Your task to perform on an android device: turn off wifi Image 0: 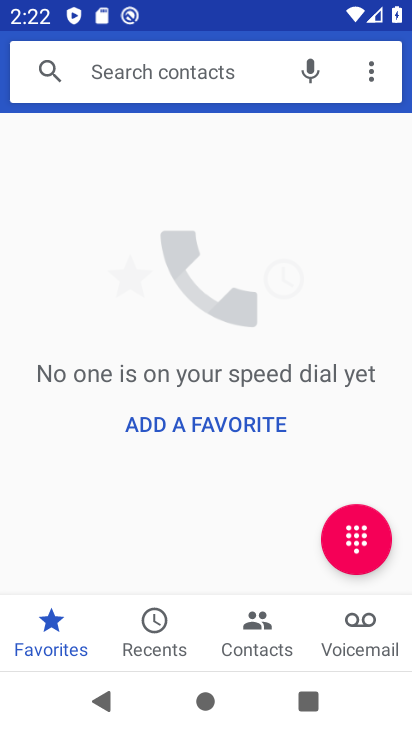
Step 0: press home button
Your task to perform on an android device: turn off wifi Image 1: 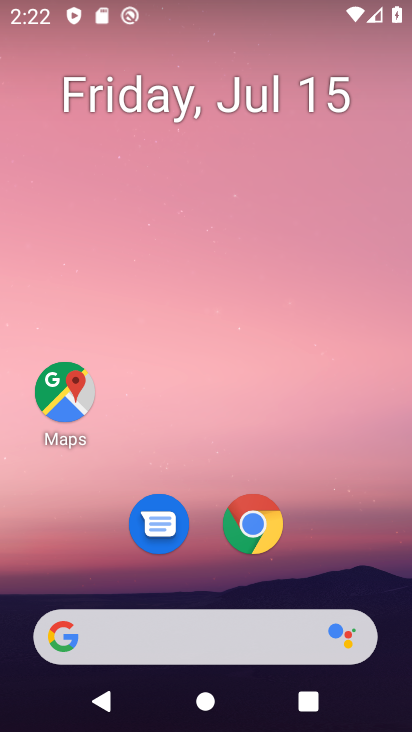
Step 1: drag from (200, 636) to (249, 144)
Your task to perform on an android device: turn off wifi Image 2: 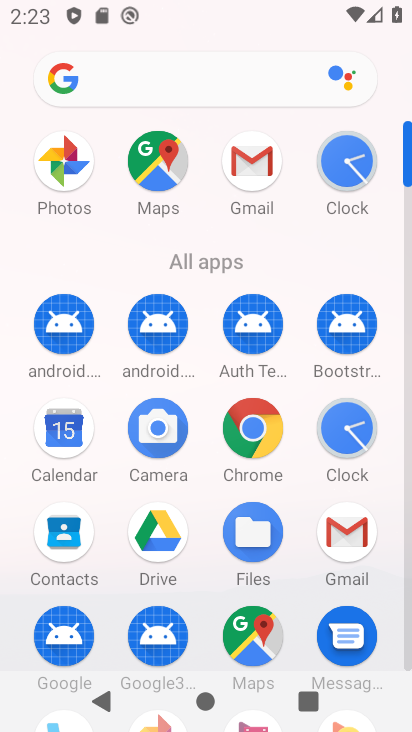
Step 2: drag from (246, 527) to (295, 181)
Your task to perform on an android device: turn off wifi Image 3: 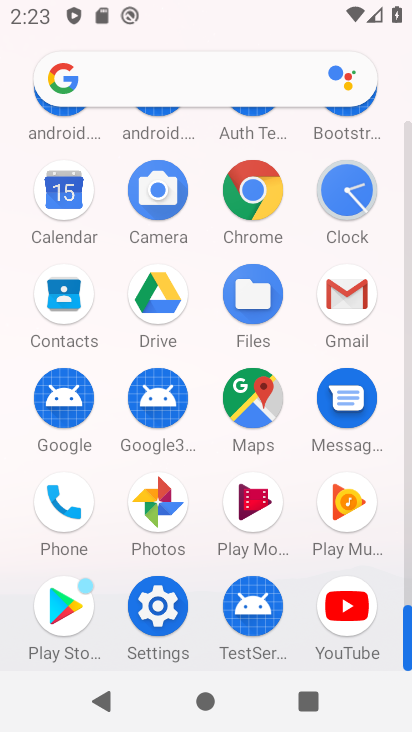
Step 3: click (150, 605)
Your task to perform on an android device: turn off wifi Image 4: 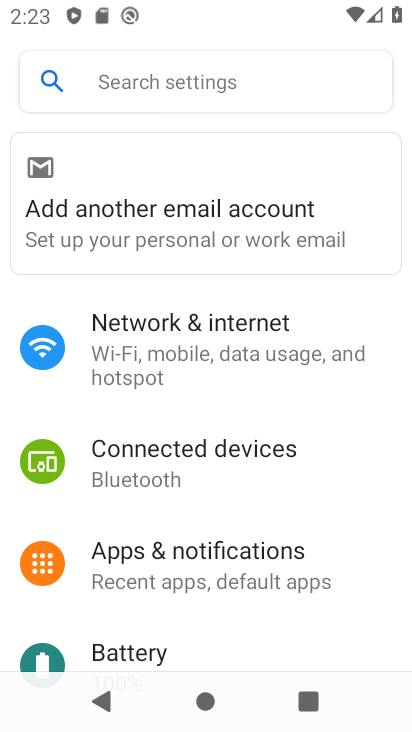
Step 4: click (247, 329)
Your task to perform on an android device: turn off wifi Image 5: 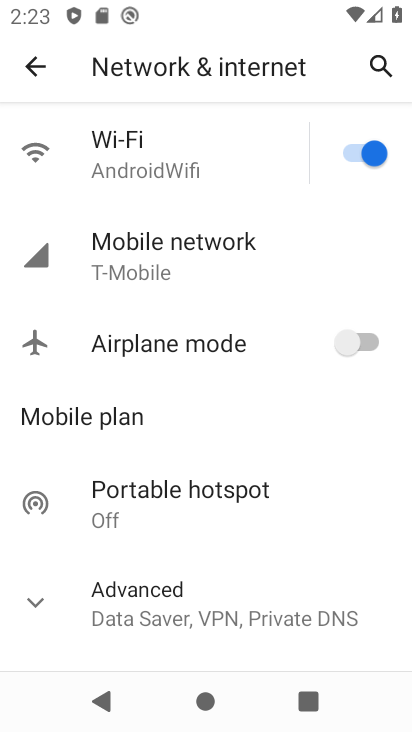
Step 5: click (354, 157)
Your task to perform on an android device: turn off wifi Image 6: 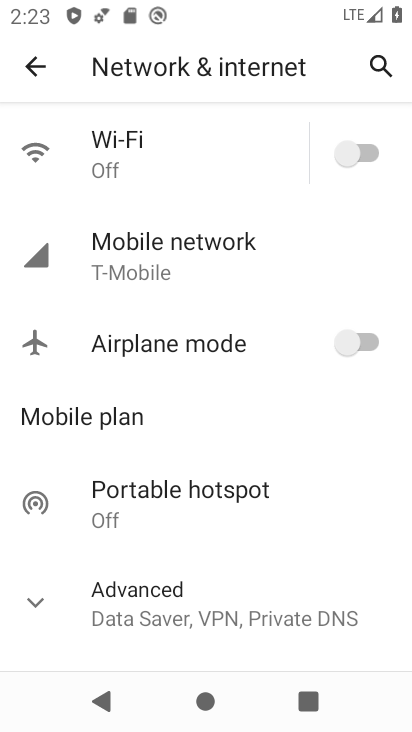
Step 6: task complete